Your task to perform on an android device: Open eBay Image 0: 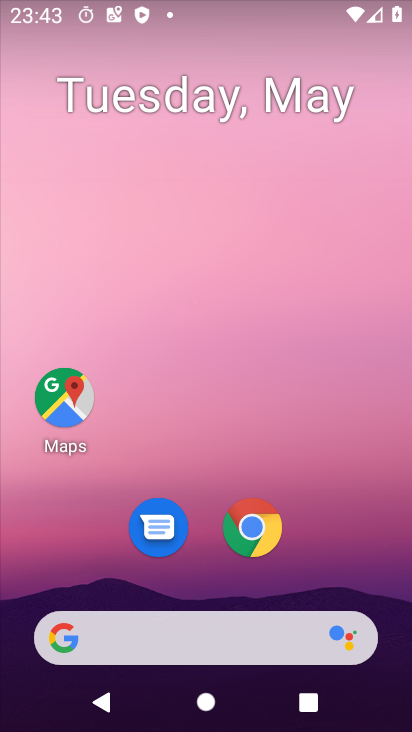
Step 0: drag from (204, 609) to (165, 43)
Your task to perform on an android device: Open eBay Image 1: 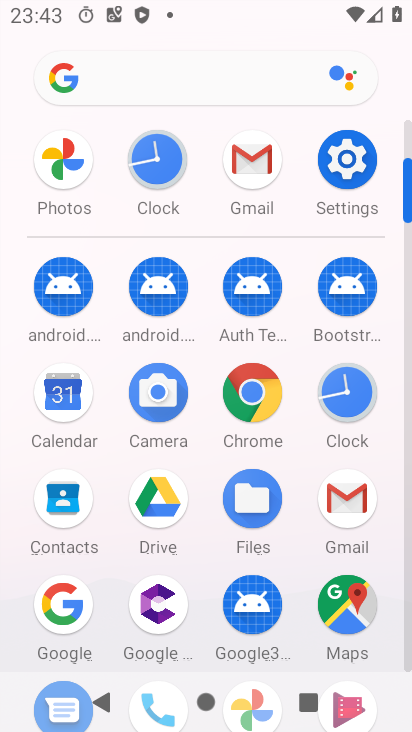
Step 1: click (157, 79)
Your task to perform on an android device: Open eBay Image 2: 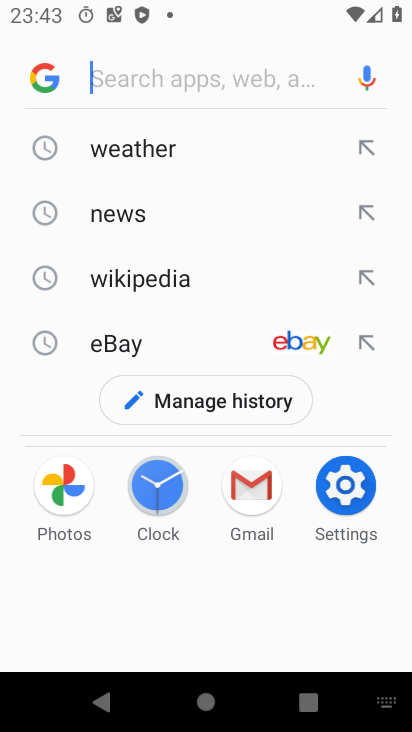
Step 2: click (185, 346)
Your task to perform on an android device: Open eBay Image 3: 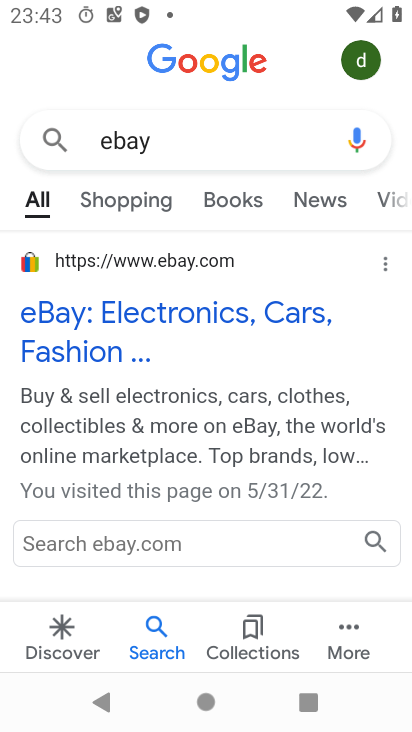
Step 3: click (87, 311)
Your task to perform on an android device: Open eBay Image 4: 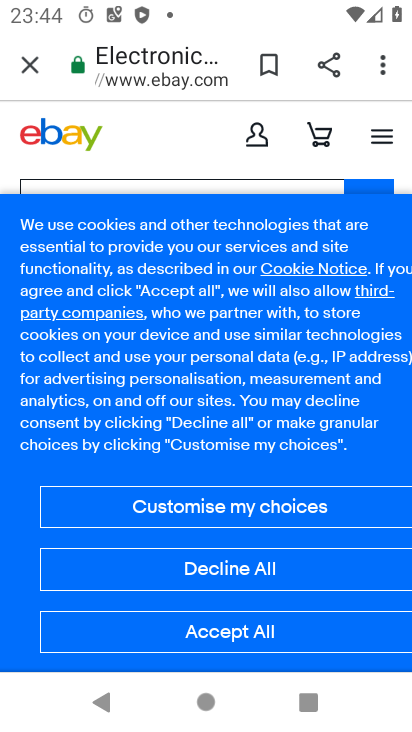
Step 4: task complete